Your task to perform on an android device: Open Chrome and go to settings Image 0: 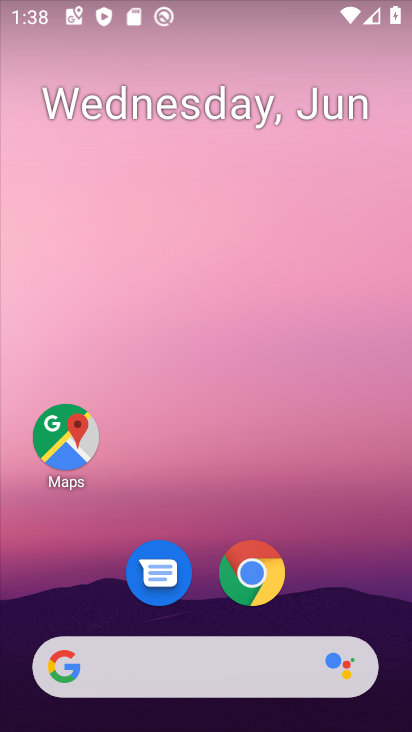
Step 0: drag from (327, 598) to (313, 221)
Your task to perform on an android device: Open Chrome and go to settings Image 1: 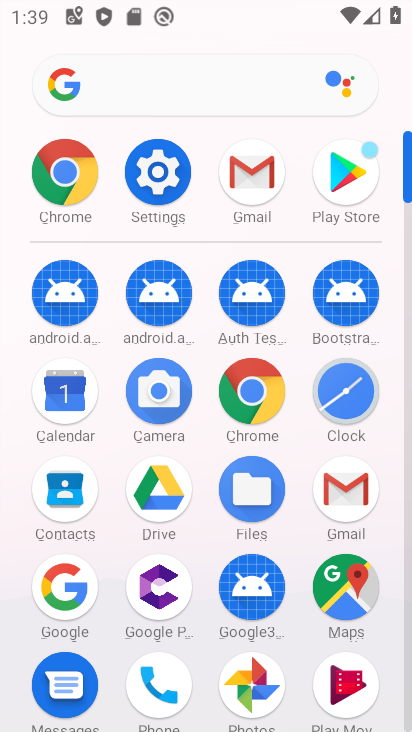
Step 1: click (76, 186)
Your task to perform on an android device: Open Chrome and go to settings Image 2: 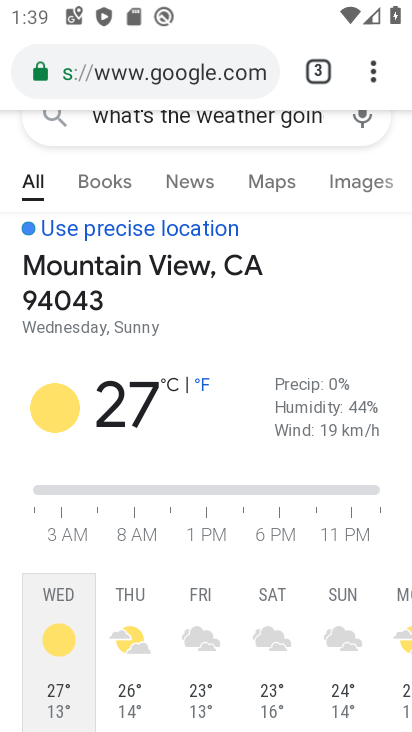
Step 2: task complete